Your task to perform on an android device: move a message to another label in the gmail app Image 0: 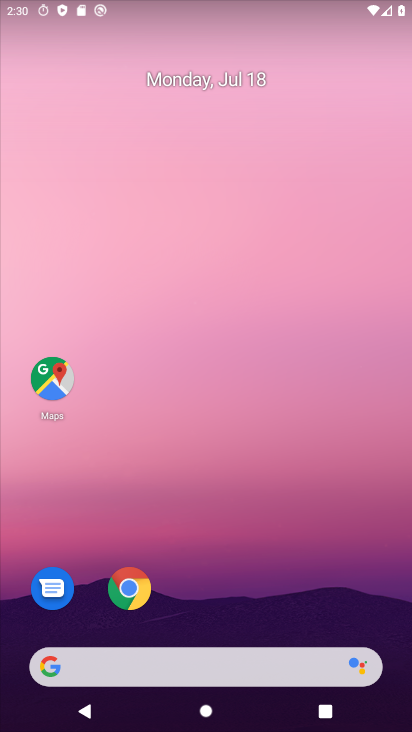
Step 0: drag from (344, 552) to (398, 277)
Your task to perform on an android device: move a message to another label in the gmail app Image 1: 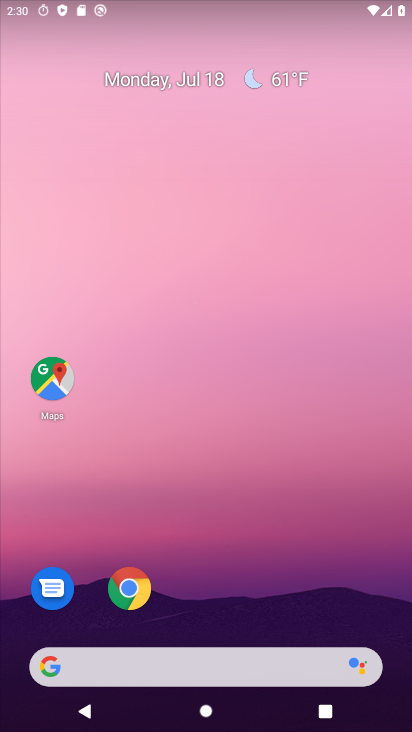
Step 1: drag from (258, 598) to (270, 30)
Your task to perform on an android device: move a message to another label in the gmail app Image 2: 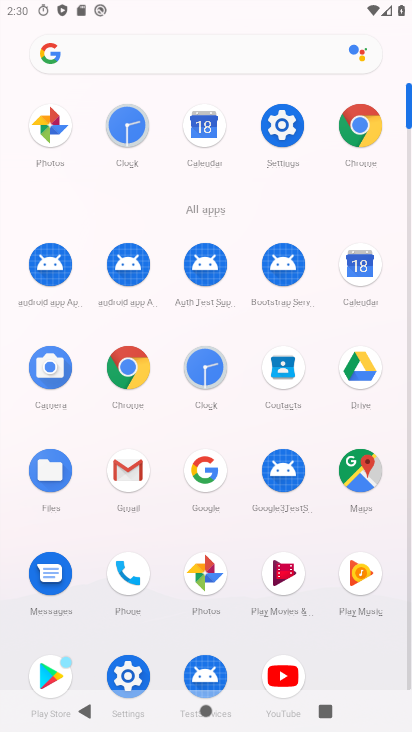
Step 2: click (120, 475)
Your task to perform on an android device: move a message to another label in the gmail app Image 3: 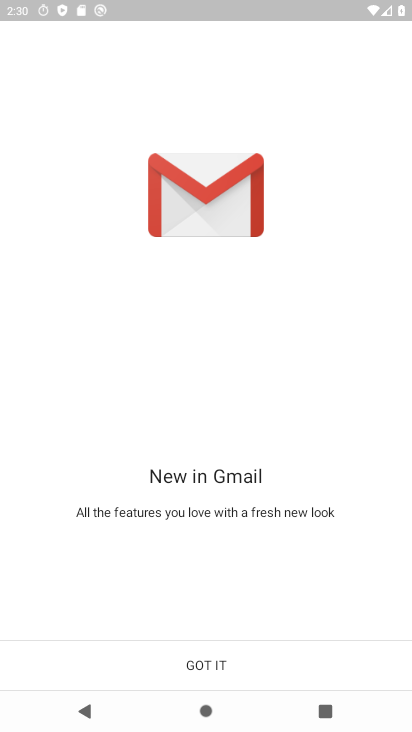
Step 3: click (207, 671)
Your task to perform on an android device: move a message to another label in the gmail app Image 4: 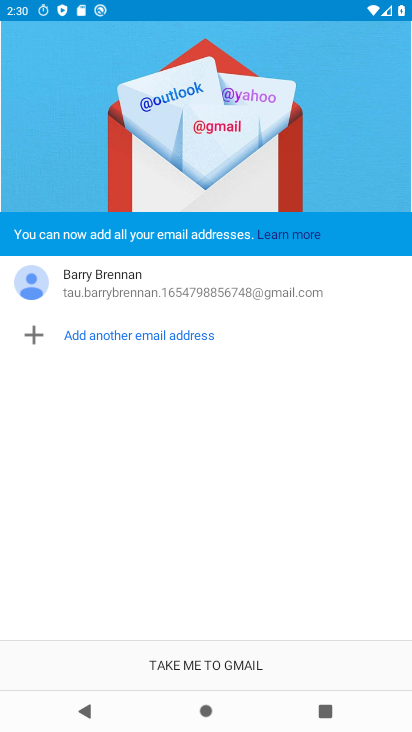
Step 4: click (236, 664)
Your task to perform on an android device: move a message to another label in the gmail app Image 5: 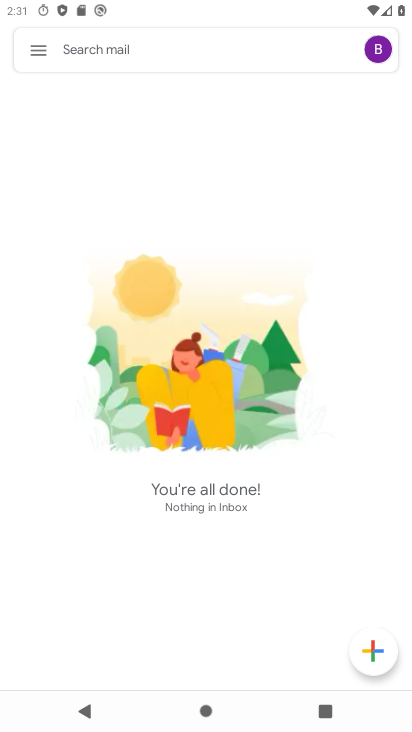
Step 5: task complete